Your task to perform on an android device: Is it going to rain today? Image 0: 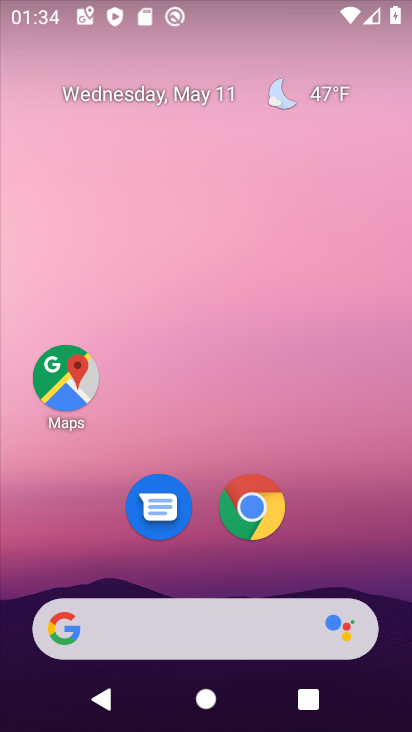
Step 0: click (246, 618)
Your task to perform on an android device: Is it going to rain today? Image 1: 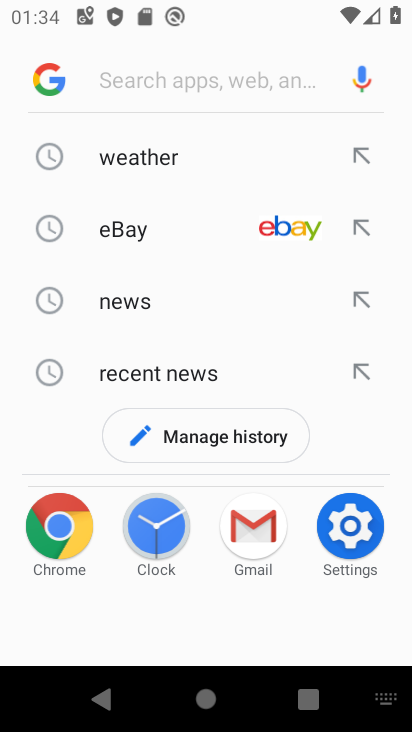
Step 1: click (144, 156)
Your task to perform on an android device: Is it going to rain today? Image 2: 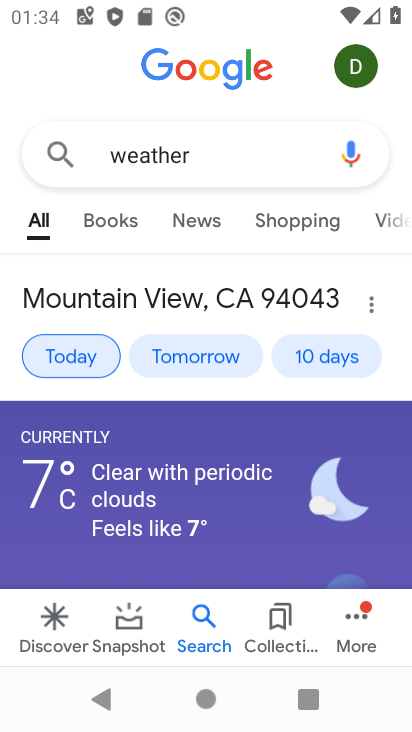
Step 2: task complete